Your task to perform on an android device: toggle translation in the chrome app Image 0: 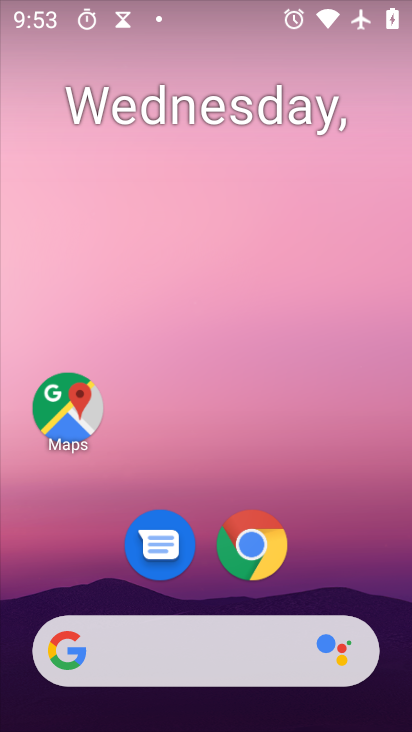
Step 0: press home button
Your task to perform on an android device: toggle translation in the chrome app Image 1: 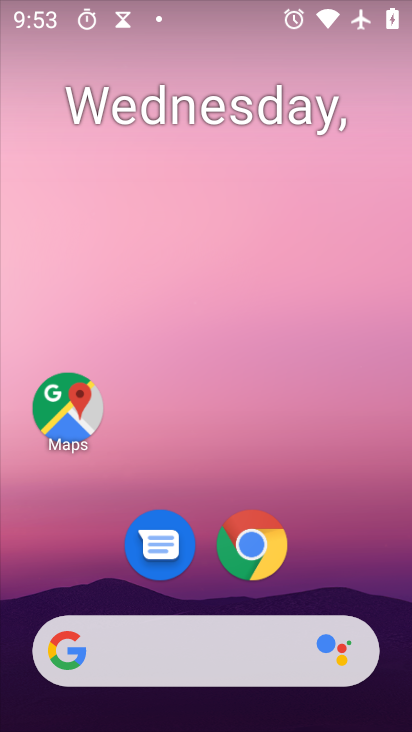
Step 1: click (269, 551)
Your task to perform on an android device: toggle translation in the chrome app Image 2: 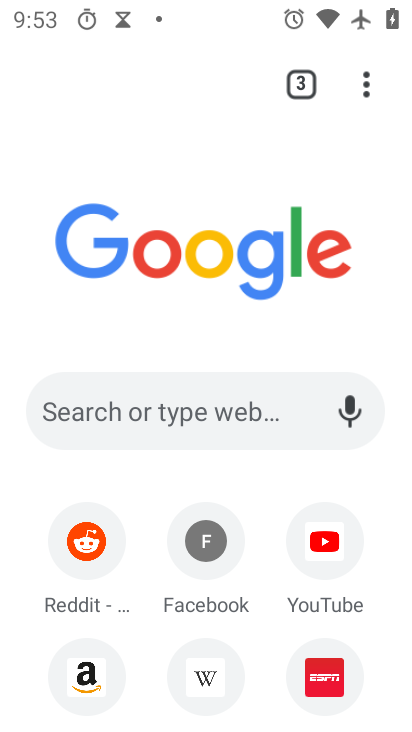
Step 2: drag from (365, 92) to (190, 598)
Your task to perform on an android device: toggle translation in the chrome app Image 3: 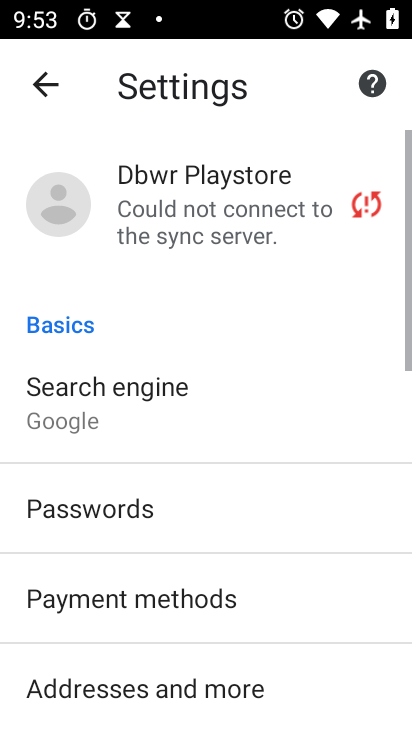
Step 3: drag from (200, 655) to (236, 422)
Your task to perform on an android device: toggle translation in the chrome app Image 4: 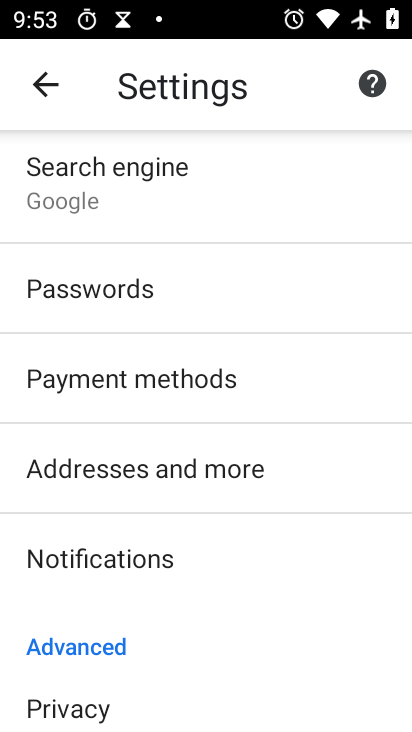
Step 4: drag from (216, 582) to (343, 116)
Your task to perform on an android device: toggle translation in the chrome app Image 5: 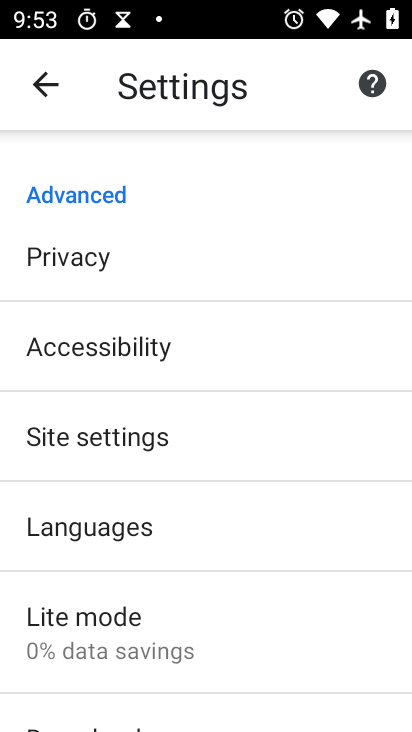
Step 5: click (149, 520)
Your task to perform on an android device: toggle translation in the chrome app Image 6: 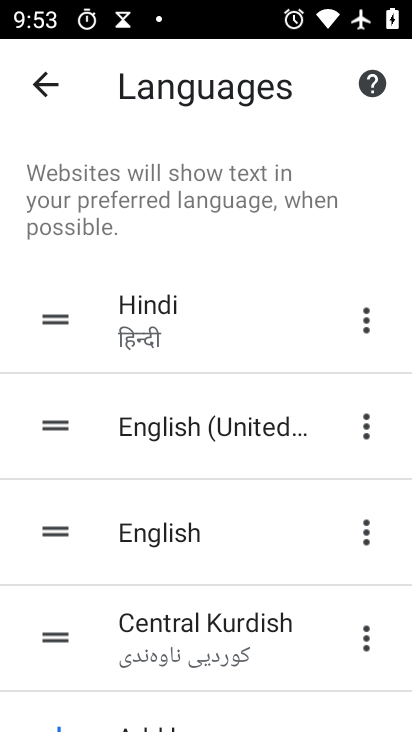
Step 6: drag from (209, 601) to (356, 176)
Your task to perform on an android device: toggle translation in the chrome app Image 7: 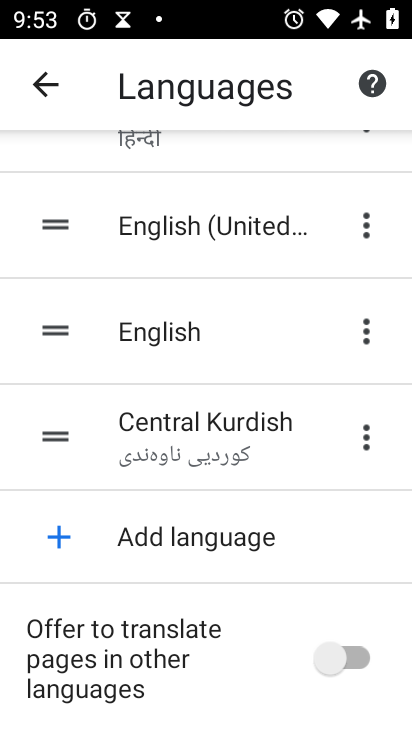
Step 7: click (355, 653)
Your task to perform on an android device: toggle translation in the chrome app Image 8: 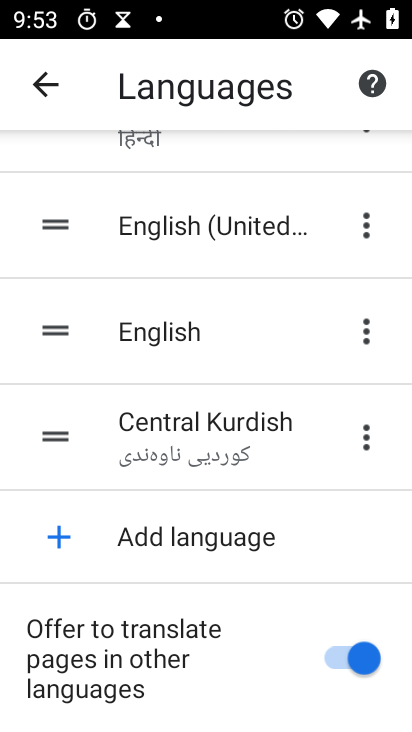
Step 8: task complete